Your task to perform on an android device: turn off location history Image 0: 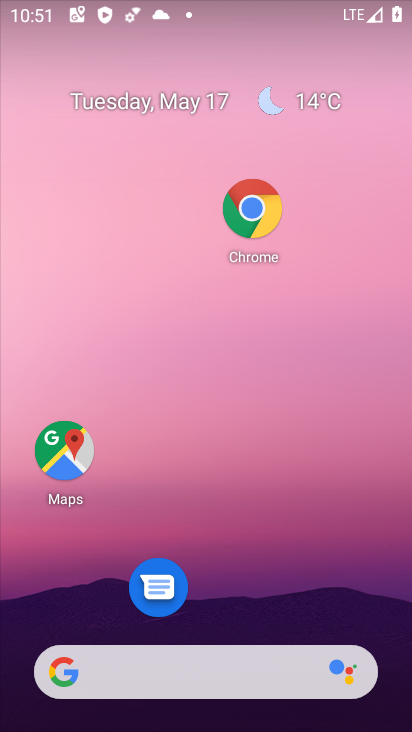
Step 0: drag from (299, 523) to (306, 67)
Your task to perform on an android device: turn off location history Image 1: 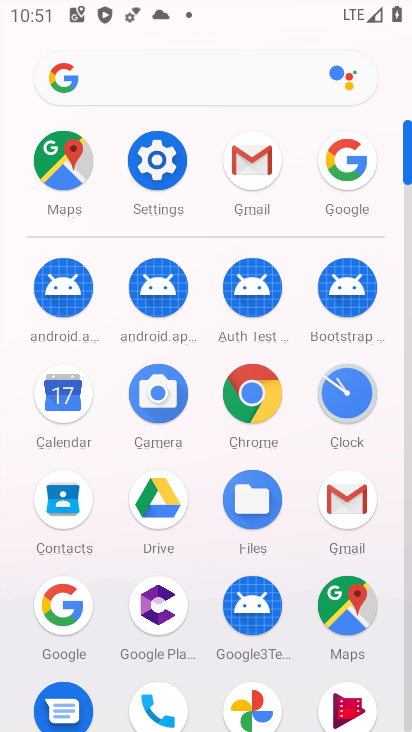
Step 1: click (164, 157)
Your task to perform on an android device: turn off location history Image 2: 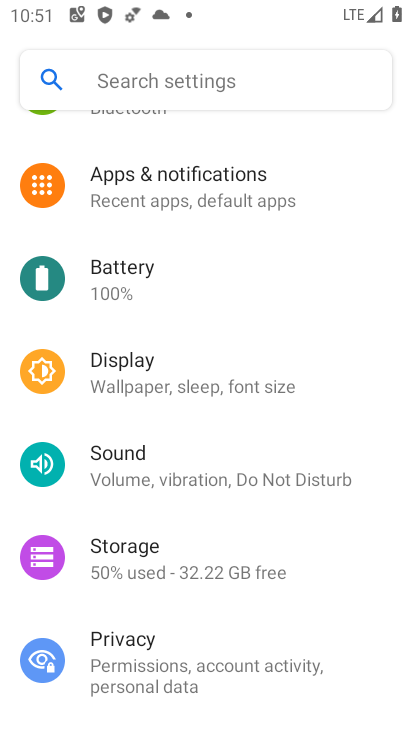
Step 2: drag from (256, 622) to (269, 238)
Your task to perform on an android device: turn off location history Image 3: 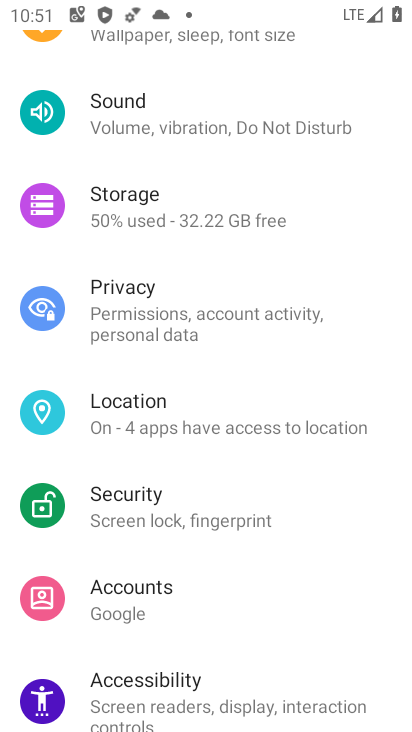
Step 3: click (246, 429)
Your task to perform on an android device: turn off location history Image 4: 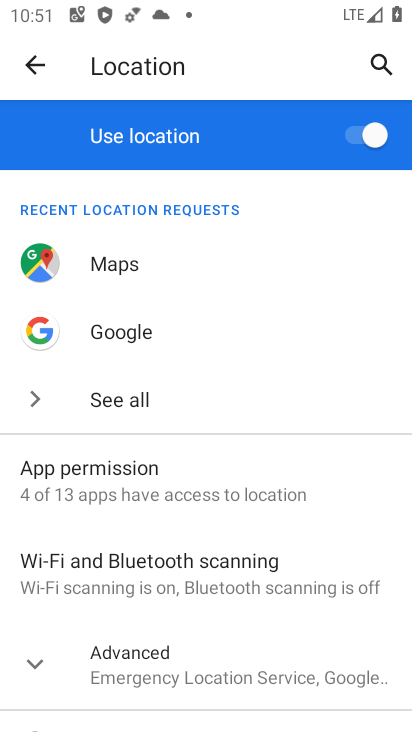
Step 4: click (273, 668)
Your task to perform on an android device: turn off location history Image 5: 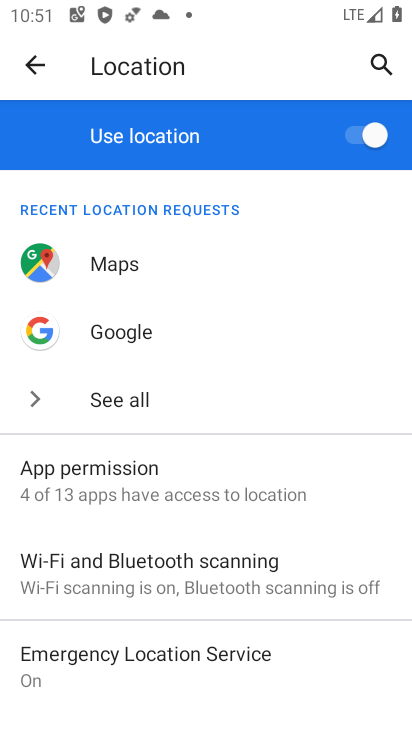
Step 5: drag from (273, 668) to (284, 374)
Your task to perform on an android device: turn off location history Image 6: 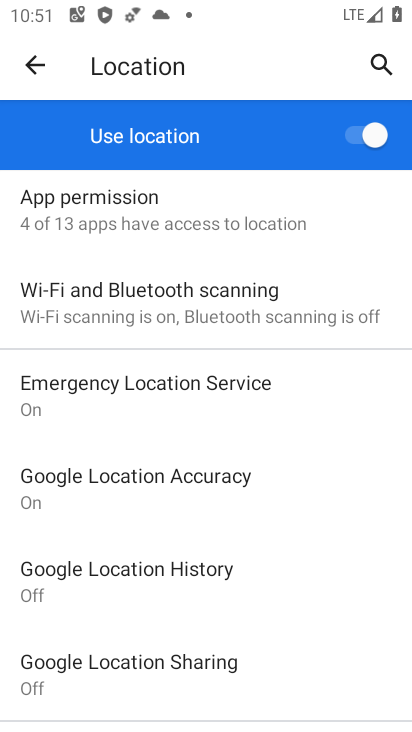
Step 6: click (172, 581)
Your task to perform on an android device: turn off location history Image 7: 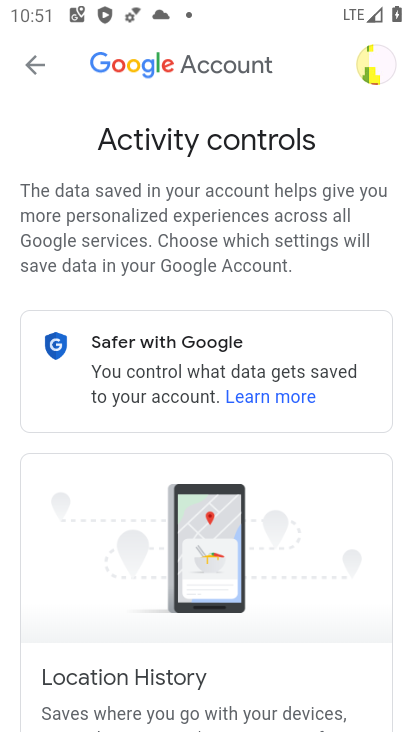
Step 7: drag from (279, 626) to (325, 225)
Your task to perform on an android device: turn off location history Image 8: 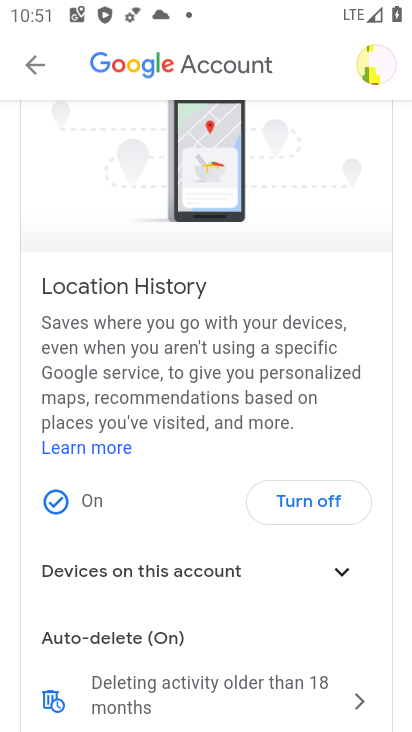
Step 8: click (326, 490)
Your task to perform on an android device: turn off location history Image 9: 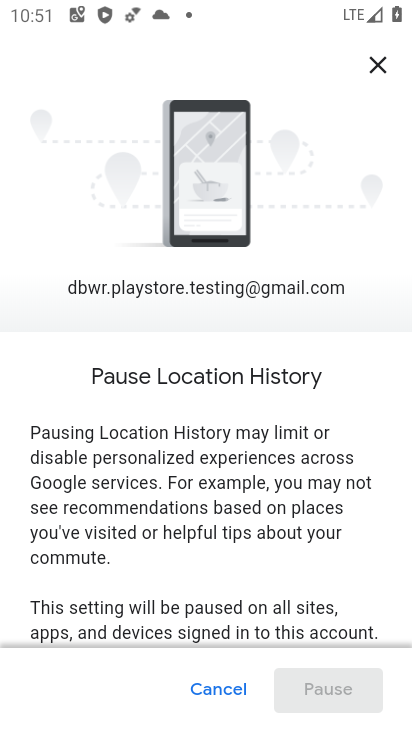
Step 9: drag from (355, 620) to (312, 237)
Your task to perform on an android device: turn off location history Image 10: 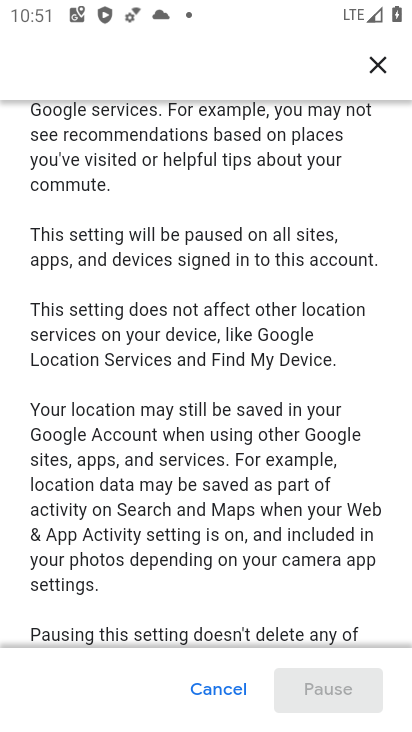
Step 10: drag from (319, 596) to (302, 454)
Your task to perform on an android device: turn off location history Image 11: 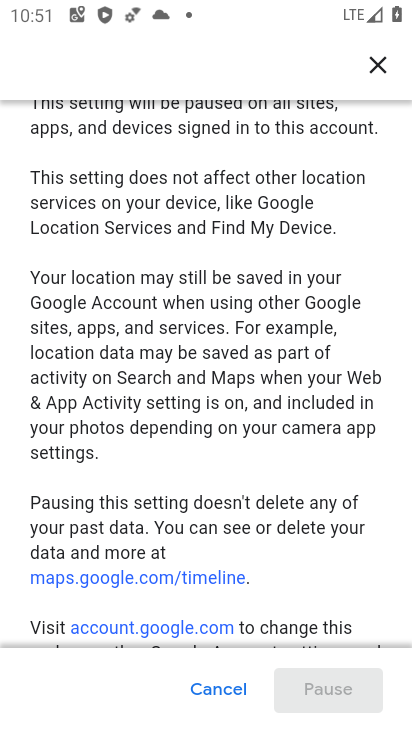
Step 11: drag from (309, 565) to (268, 224)
Your task to perform on an android device: turn off location history Image 12: 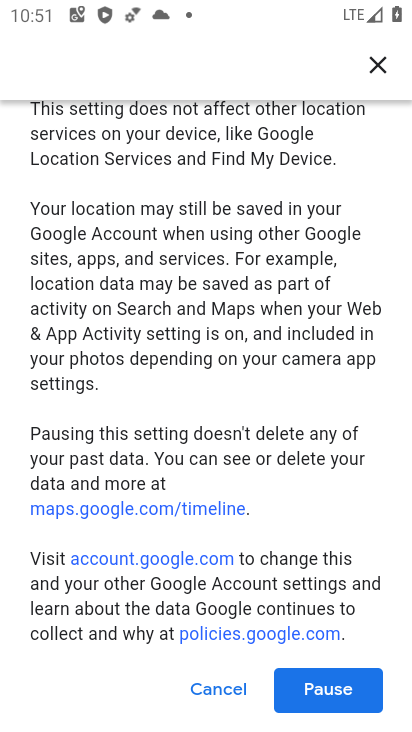
Step 12: click (333, 696)
Your task to perform on an android device: turn off location history Image 13: 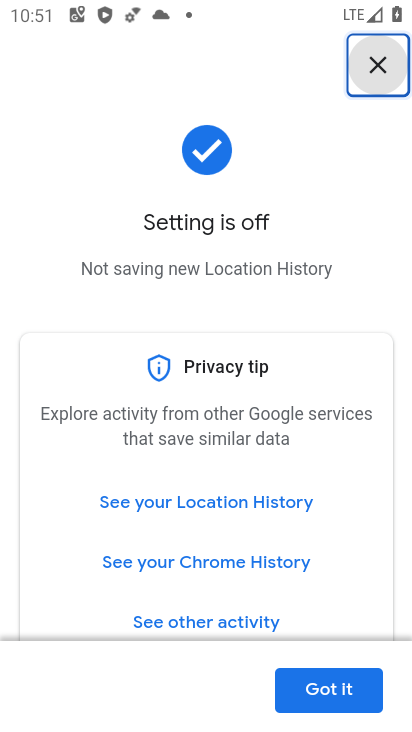
Step 13: click (342, 697)
Your task to perform on an android device: turn off location history Image 14: 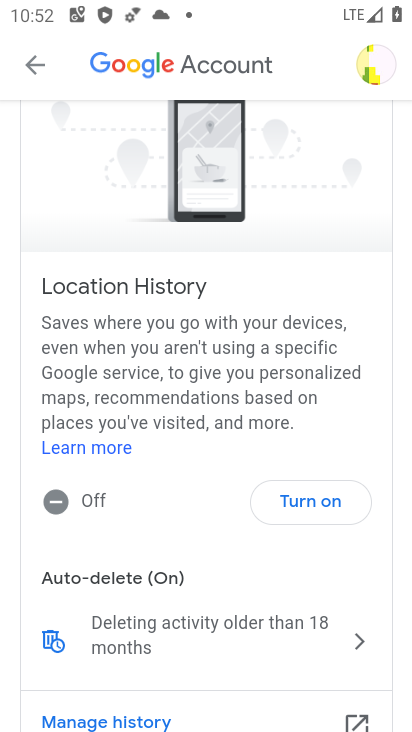
Step 14: task complete